Your task to perform on an android device: turn pop-ups on in chrome Image 0: 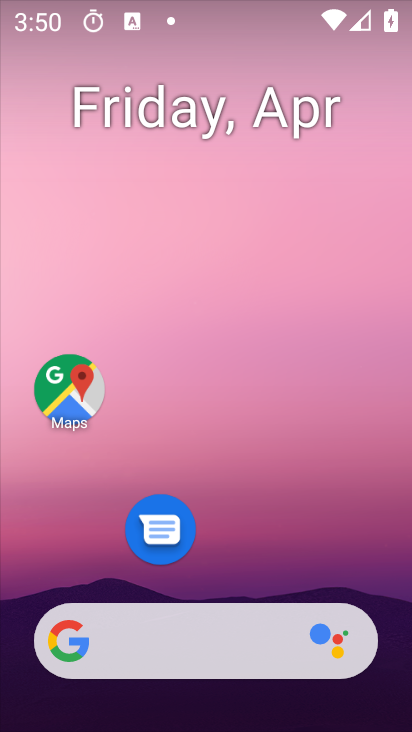
Step 0: drag from (209, 589) to (269, 143)
Your task to perform on an android device: turn pop-ups on in chrome Image 1: 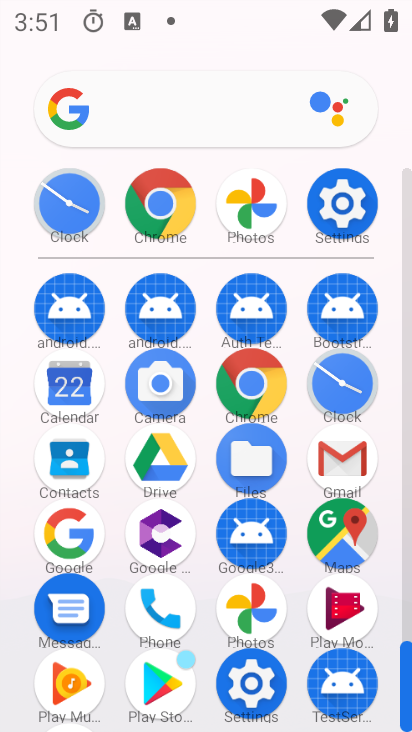
Step 1: click (176, 227)
Your task to perform on an android device: turn pop-ups on in chrome Image 2: 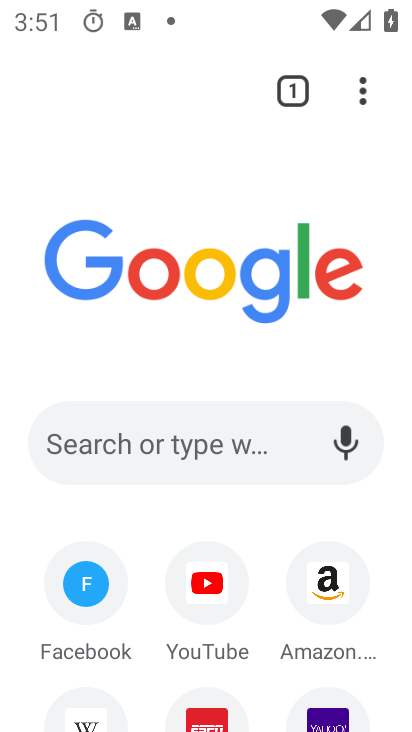
Step 2: click (360, 93)
Your task to perform on an android device: turn pop-ups on in chrome Image 3: 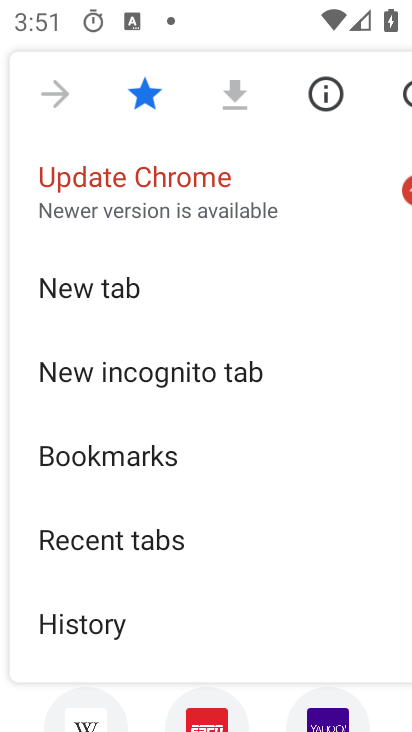
Step 3: drag from (252, 449) to (271, 274)
Your task to perform on an android device: turn pop-ups on in chrome Image 4: 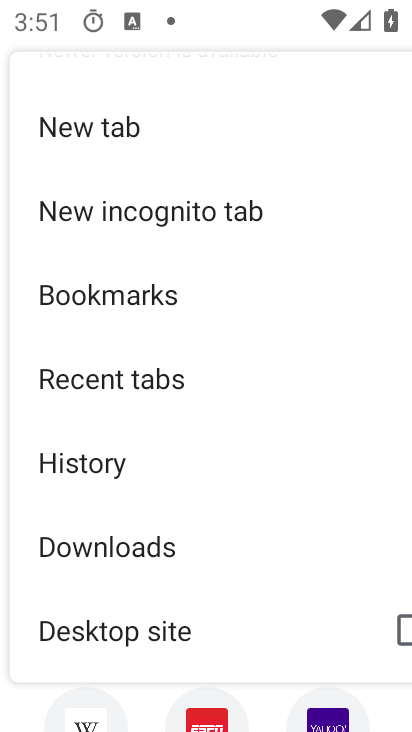
Step 4: drag from (223, 520) to (252, 297)
Your task to perform on an android device: turn pop-ups on in chrome Image 5: 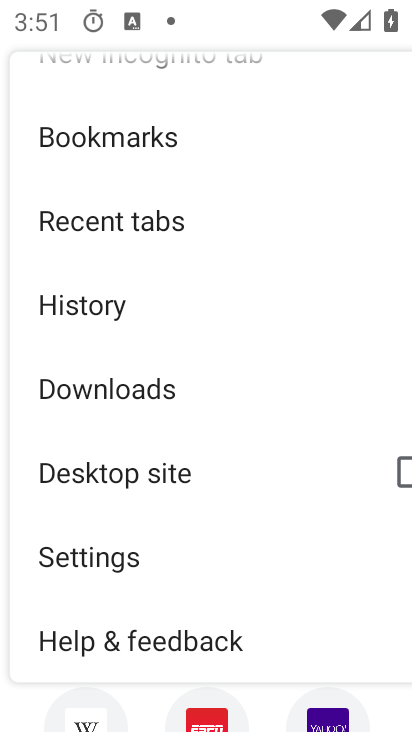
Step 5: drag from (222, 582) to (248, 412)
Your task to perform on an android device: turn pop-ups on in chrome Image 6: 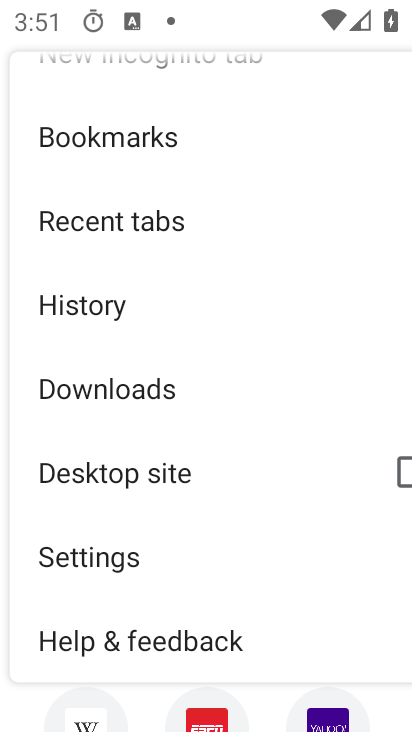
Step 6: click (122, 563)
Your task to perform on an android device: turn pop-ups on in chrome Image 7: 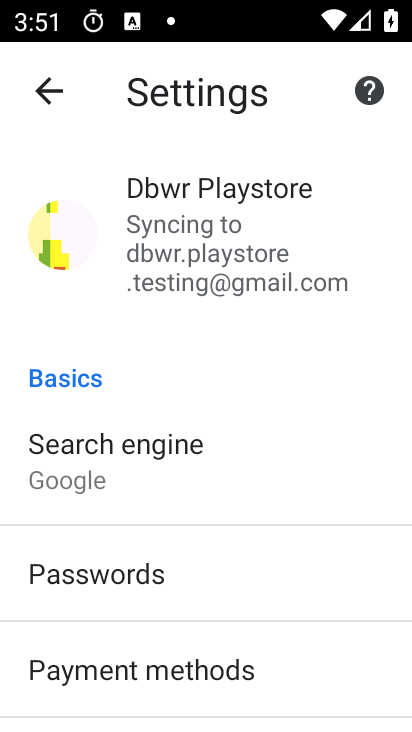
Step 7: drag from (122, 573) to (144, 382)
Your task to perform on an android device: turn pop-ups on in chrome Image 8: 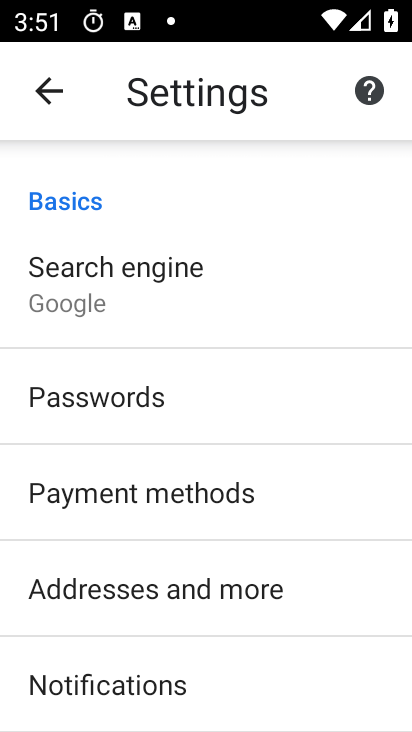
Step 8: drag from (134, 497) to (146, 372)
Your task to perform on an android device: turn pop-ups on in chrome Image 9: 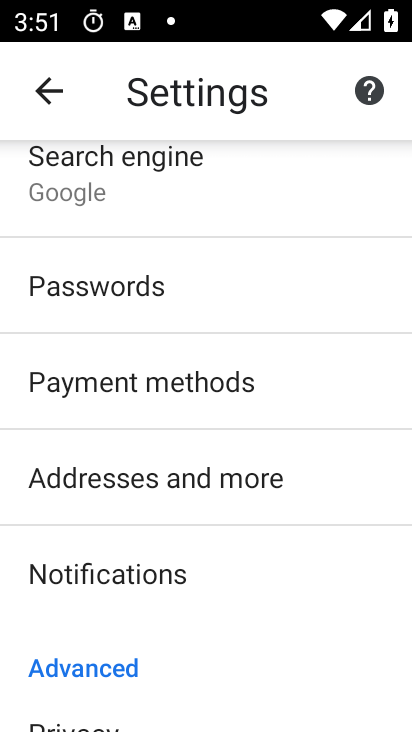
Step 9: drag from (141, 454) to (169, 213)
Your task to perform on an android device: turn pop-ups on in chrome Image 10: 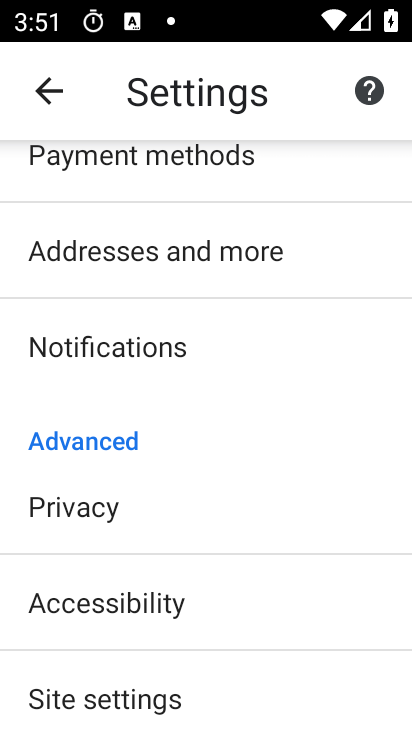
Step 10: drag from (152, 430) to (163, 321)
Your task to perform on an android device: turn pop-ups on in chrome Image 11: 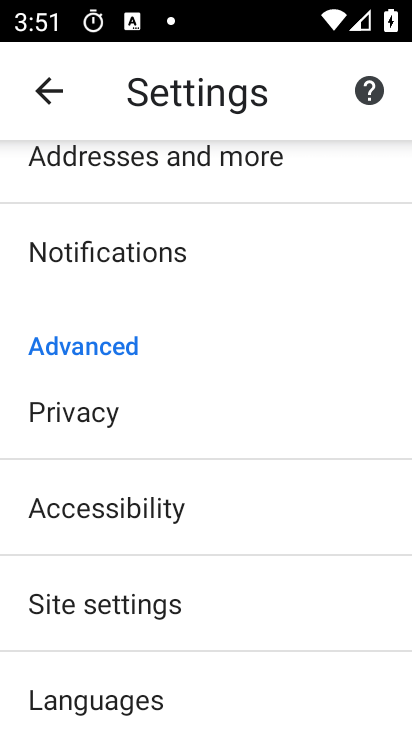
Step 11: click (108, 608)
Your task to perform on an android device: turn pop-ups on in chrome Image 12: 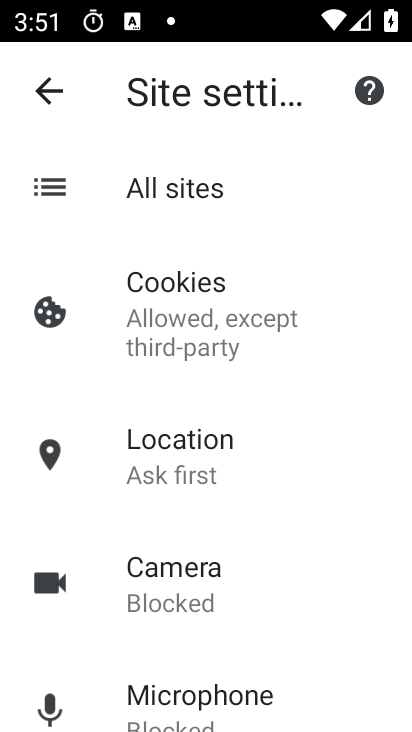
Step 12: drag from (232, 496) to (278, 286)
Your task to perform on an android device: turn pop-ups on in chrome Image 13: 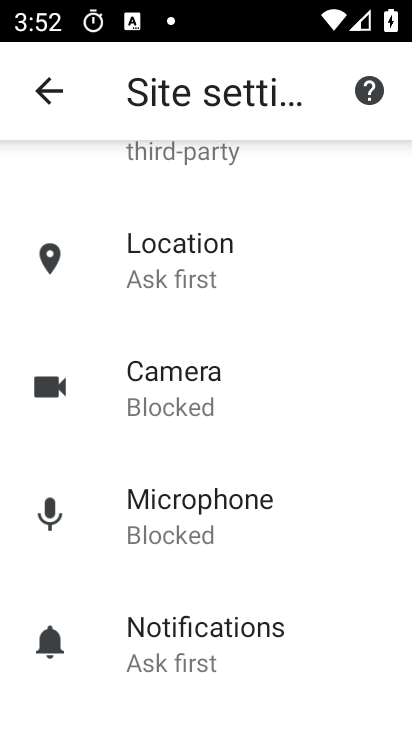
Step 13: drag from (223, 534) to (295, 203)
Your task to perform on an android device: turn pop-ups on in chrome Image 14: 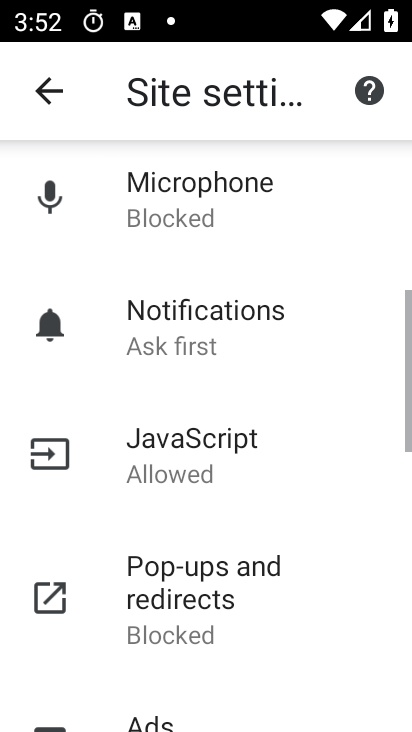
Step 14: drag from (251, 425) to (271, 253)
Your task to perform on an android device: turn pop-ups on in chrome Image 15: 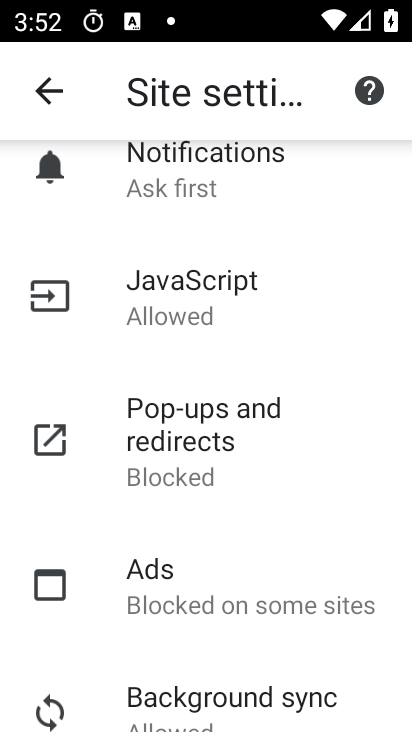
Step 15: click (236, 424)
Your task to perform on an android device: turn pop-ups on in chrome Image 16: 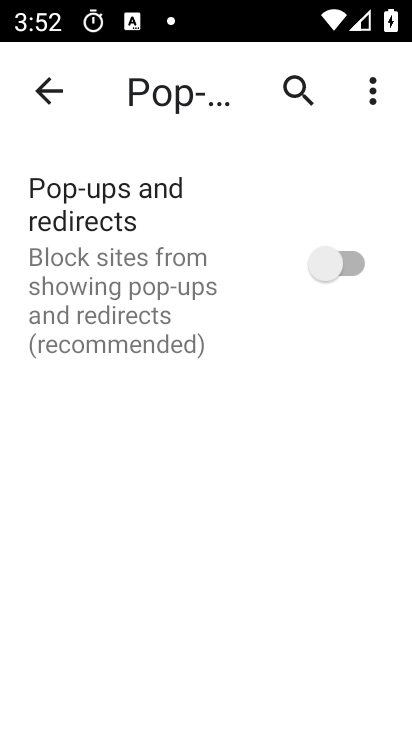
Step 16: click (355, 265)
Your task to perform on an android device: turn pop-ups on in chrome Image 17: 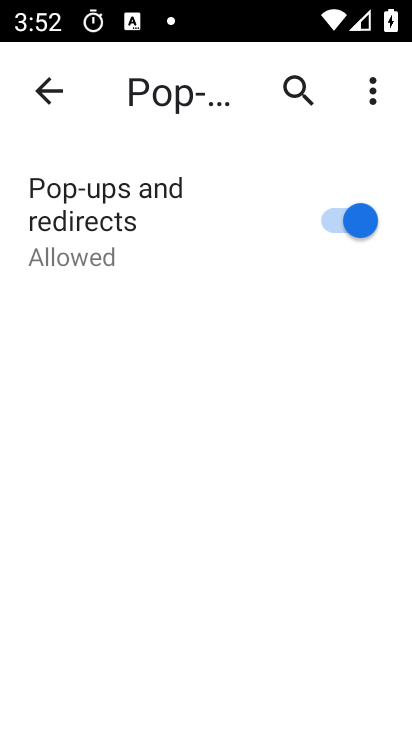
Step 17: task complete